Your task to perform on an android device: Open sound settings Image 0: 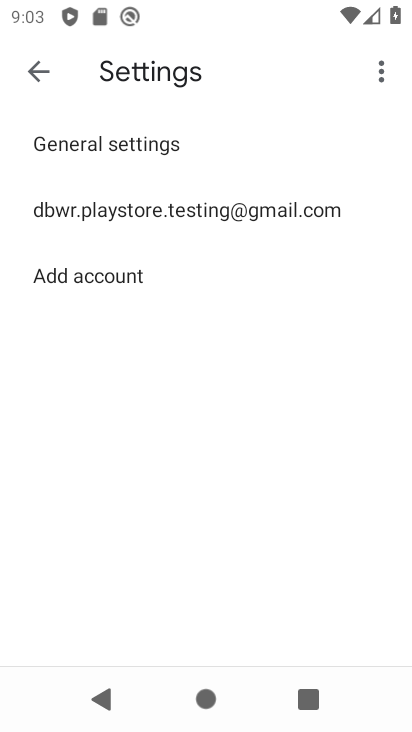
Step 0: press home button
Your task to perform on an android device: Open sound settings Image 1: 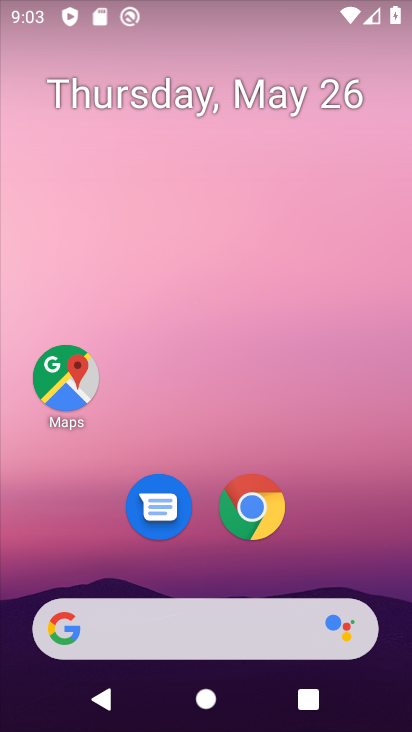
Step 1: drag from (368, 562) to (351, 159)
Your task to perform on an android device: Open sound settings Image 2: 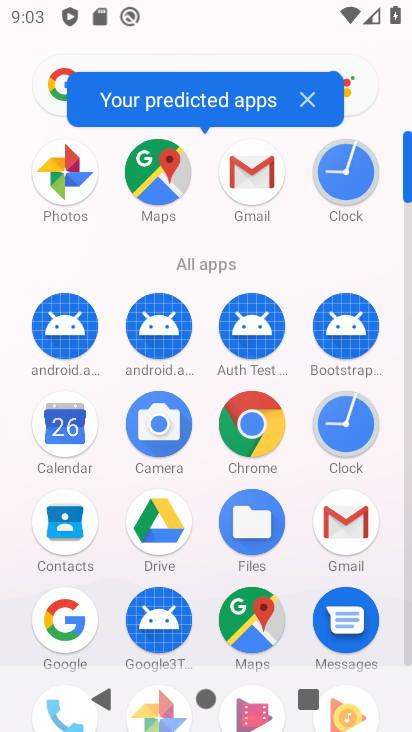
Step 2: drag from (393, 547) to (390, 229)
Your task to perform on an android device: Open sound settings Image 3: 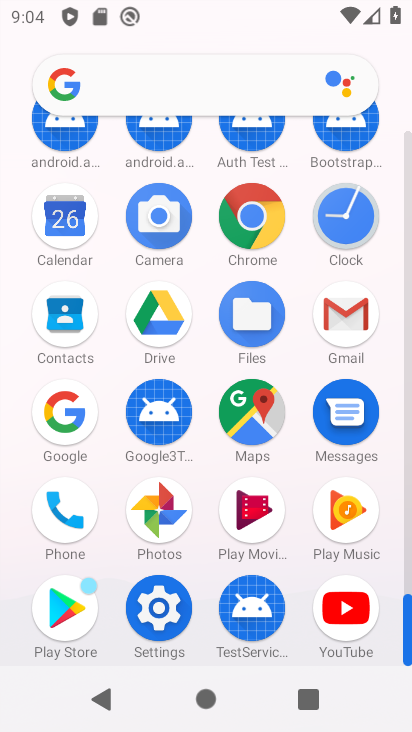
Step 3: click (164, 640)
Your task to perform on an android device: Open sound settings Image 4: 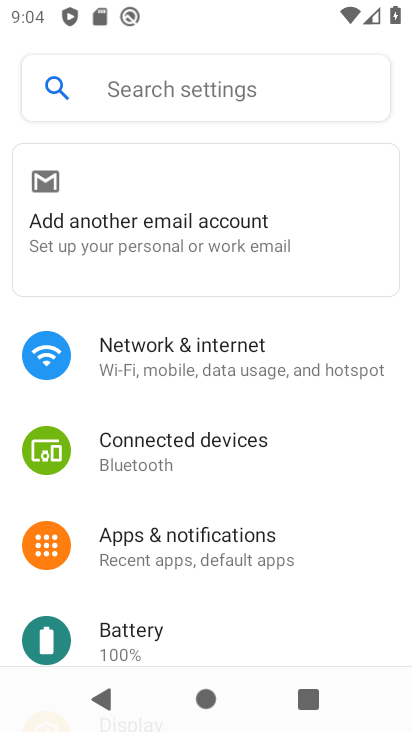
Step 4: drag from (330, 558) to (339, 436)
Your task to perform on an android device: Open sound settings Image 5: 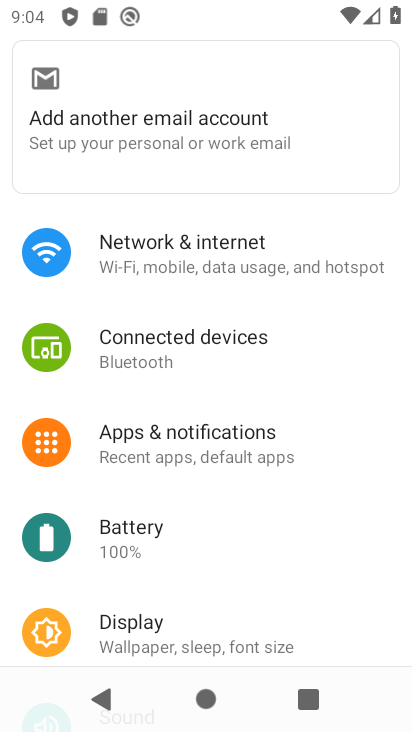
Step 5: drag from (330, 578) to (333, 494)
Your task to perform on an android device: Open sound settings Image 6: 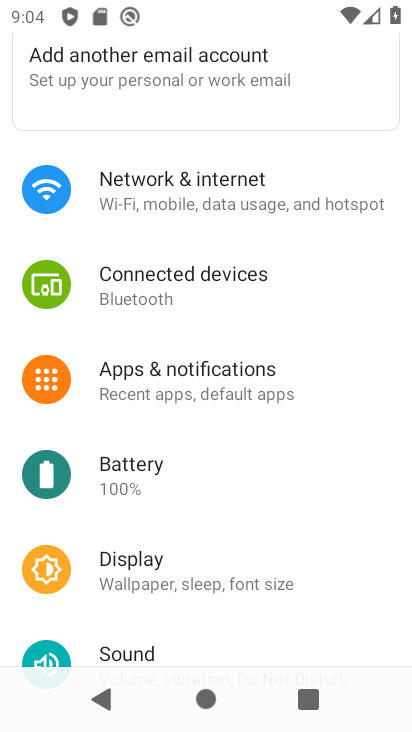
Step 6: drag from (335, 590) to (344, 464)
Your task to perform on an android device: Open sound settings Image 7: 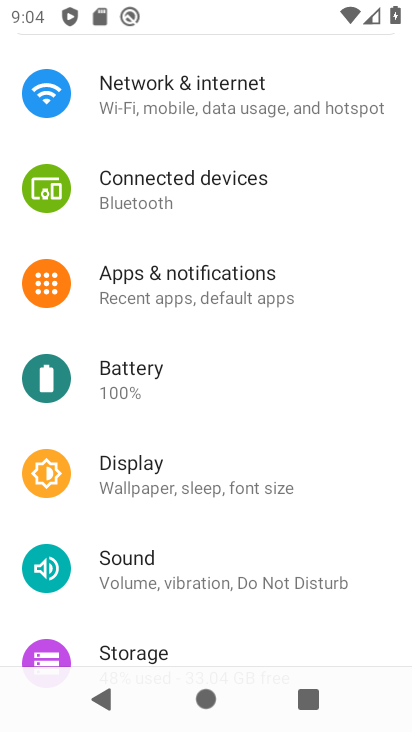
Step 7: drag from (363, 616) to (370, 468)
Your task to perform on an android device: Open sound settings Image 8: 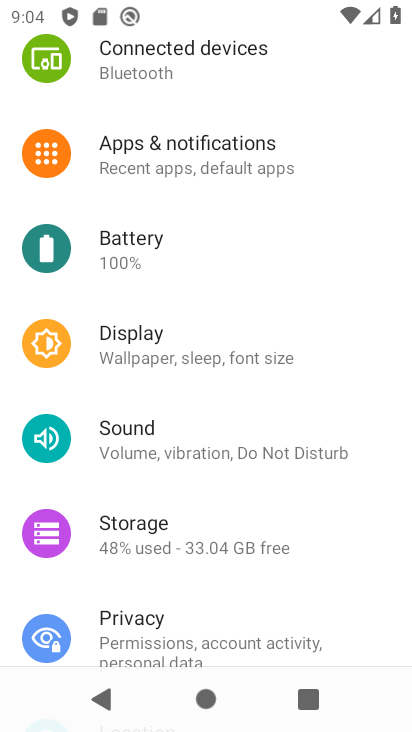
Step 8: drag from (372, 604) to (373, 472)
Your task to perform on an android device: Open sound settings Image 9: 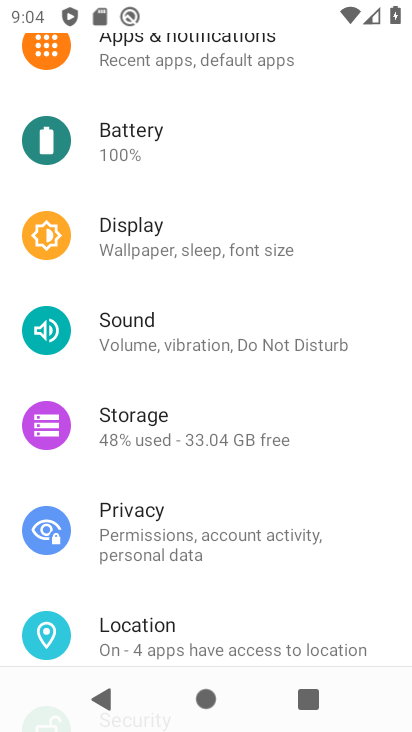
Step 9: drag from (341, 462) to (343, 355)
Your task to perform on an android device: Open sound settings Image 10: 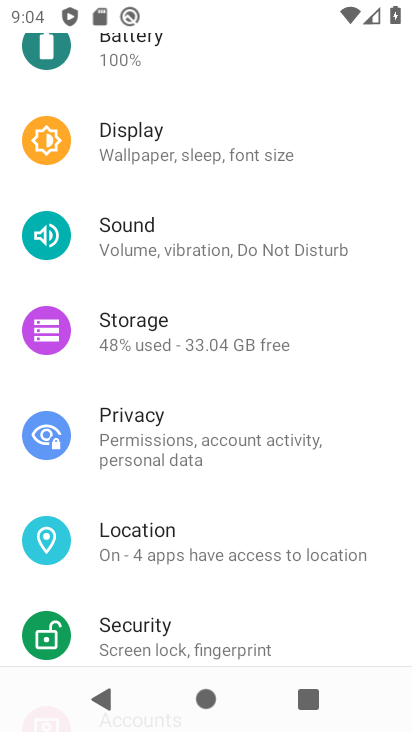
Step 10: click (295, 244)
Your task to perform on an android device: Open sound settings Image 11: 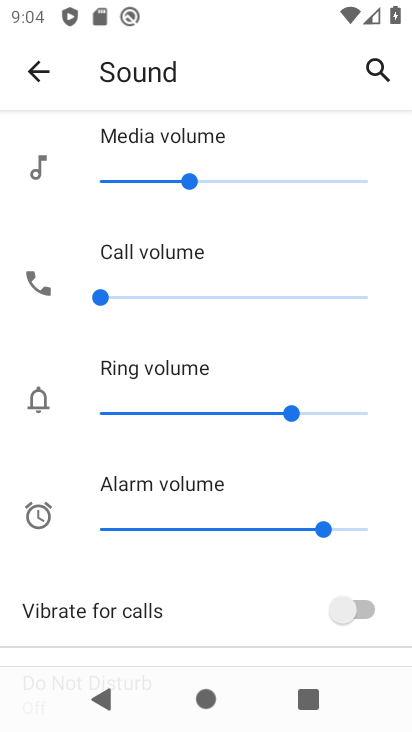
Step 11: task complete